Your task to perform on an android device: Go to display settings Image 0: 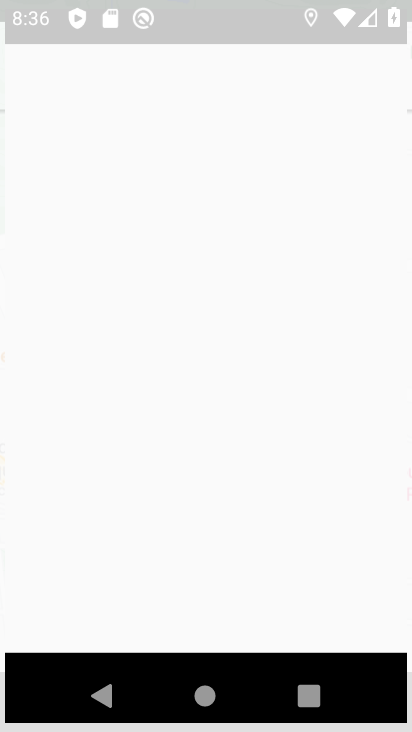
Step 0: press home button
Your task to perform on an android device: Go to display settings Image 1: 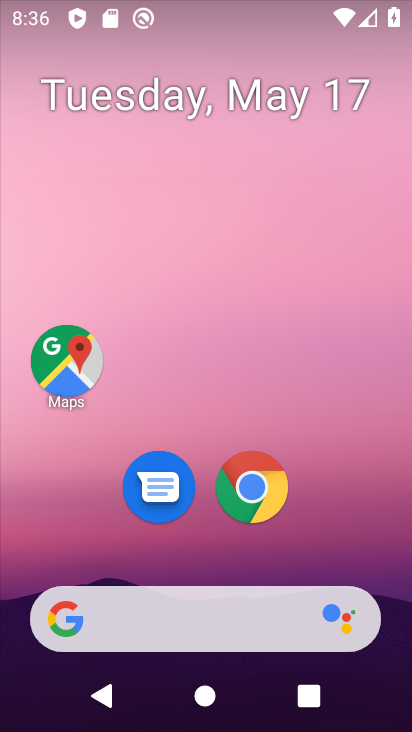
Step 1: click (309, 344)
Your task to perform on an android device: Go to display settings Image 2: 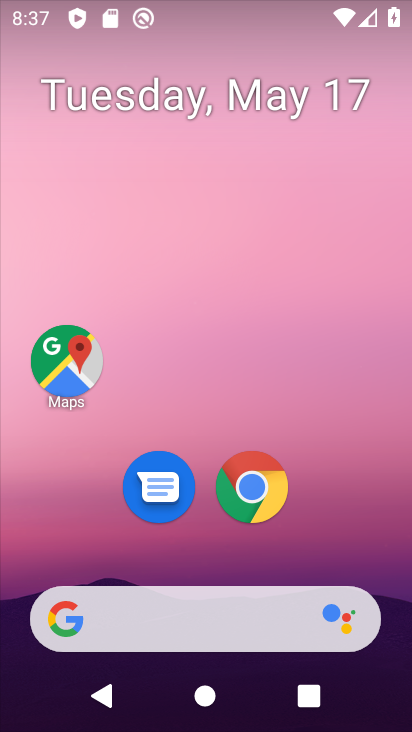
Step 2: drag from (259, 665) to (336, 203)
Your task to perform on an android device: Go to display settings Image 3: 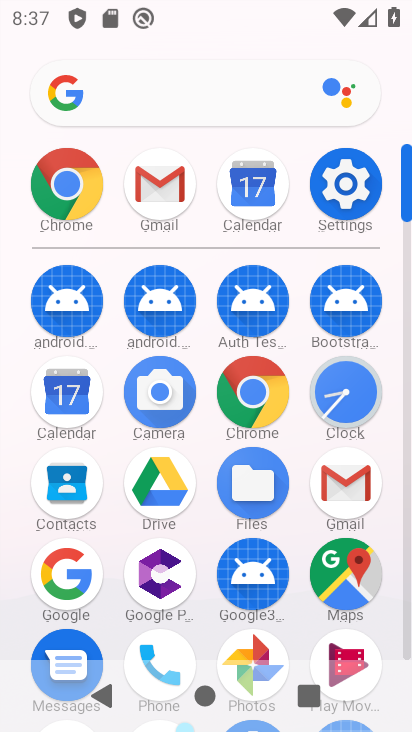
Step 3: click (359, 179)
Your task to perform on an android device: Go to display settings Image 4: 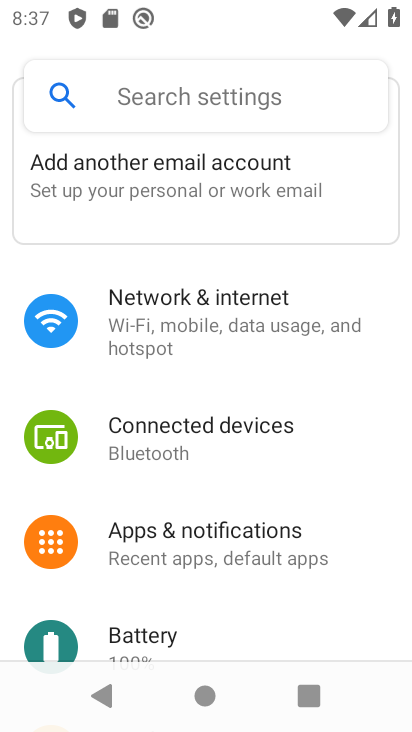
Step 4: drag from (225, 575) to (311, 242)
Your task to perform on an android device: Go to display settings Image 5: 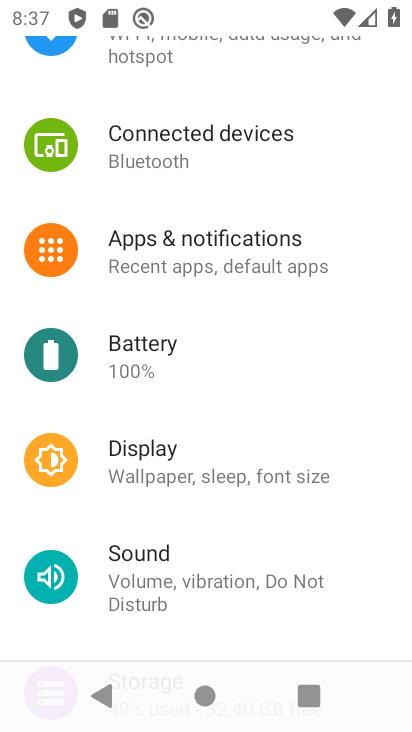
Step 5: click (176, 482)
Your task to perform on an android device: Go to display settings Image 6: 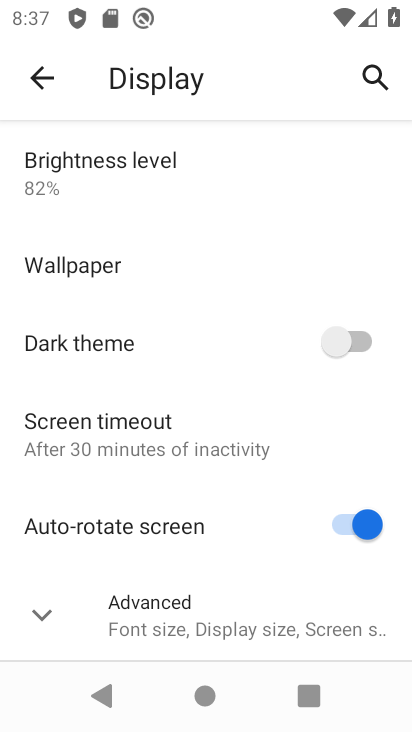
Step 6: task complete